Your task to perform on an android device: read, delete, or share a saved page in the chrome app Image 0: 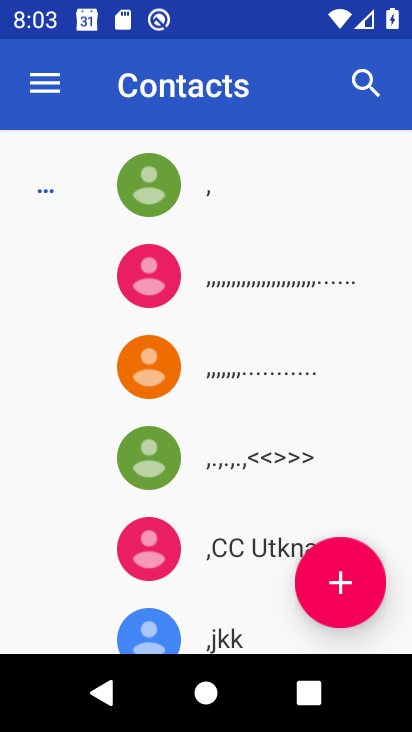
Step 0: press home button
Your task to perform on an android device: read, delete, or share a saved page in the chrome app Image 1: 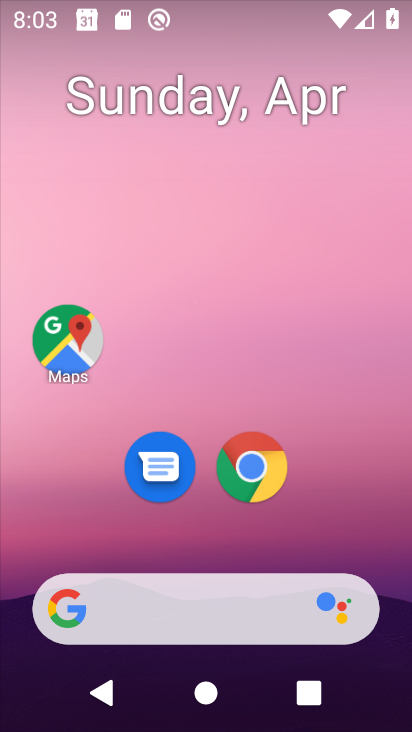
Step 1: click (259, 452)
Your task to perform on an android device: read, delete, or share a saved page in the chrome app Image 2: 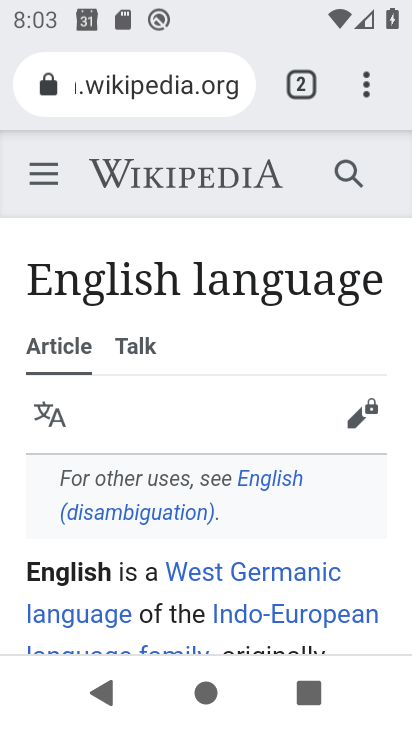
Step 2: click (365, 84)
Your task to perform on an android device: read, delete, or share a saved page in the chrome app Image 3: 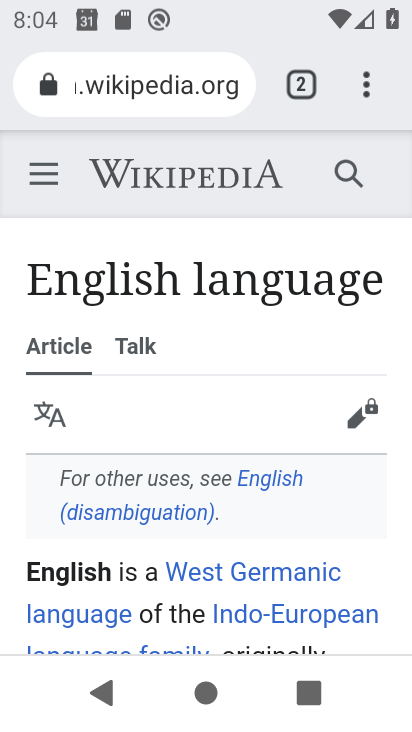
Step 3: click (363, 85)
Your task to perform on an android device: read, delete, or share a saved page in the chrome app Image 4: 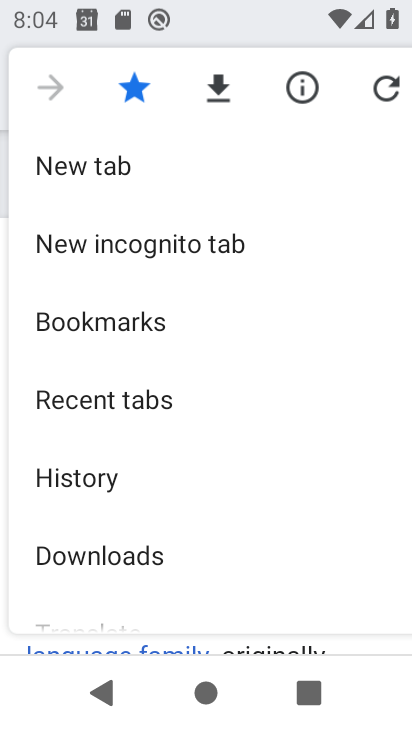
Step 4: click (141, 549)
Your task to perform on an android device: read, delete, or share a saved page in the chrome app Image 5: 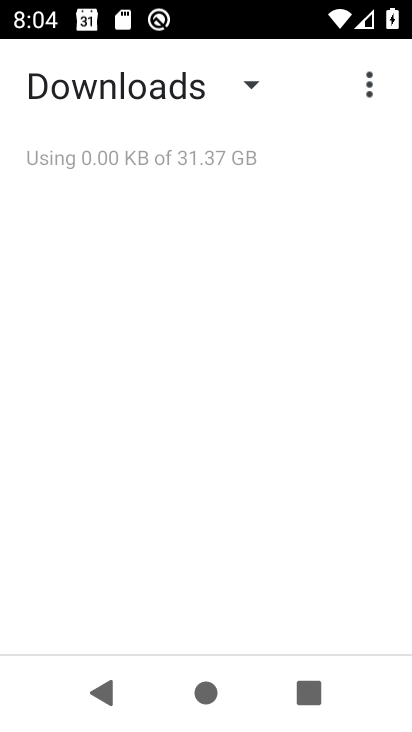
Step 5: click (246, 83)
Your task to perform on an android device: read, delete, or share a saved page in the chrome app Image 6: 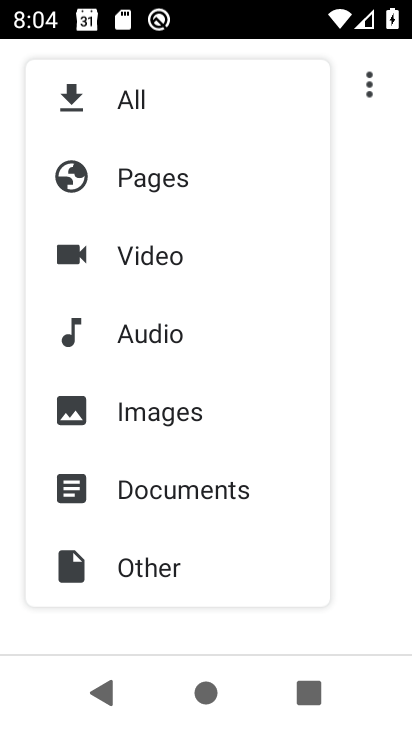
Step 6: click (173, 183)
Your task to perform on an android device: read, delete, or share a saved page in the chrome app Image 7: 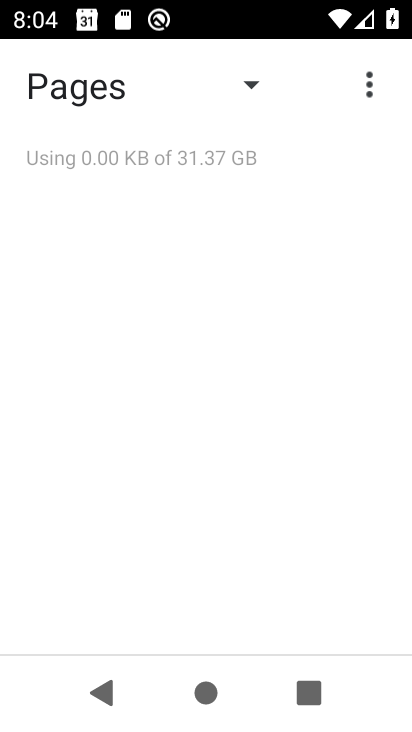
Step 7: task complete